Your task to perform on an android device: open a bookmark in the chrome app Image 0: 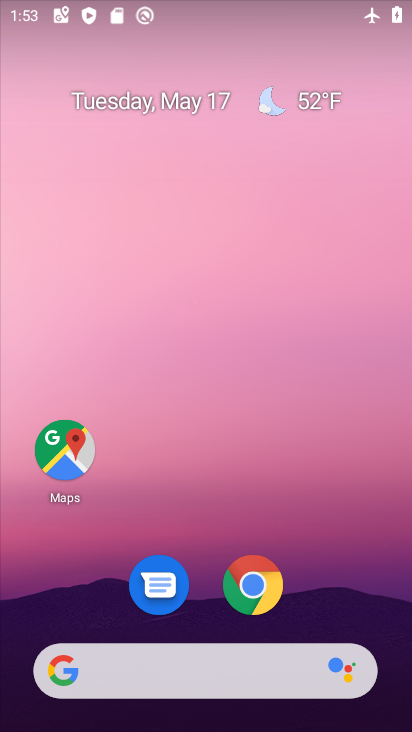
Step 0: click (273, 580)
Your task to perform on an android device: open a bookmark in the chrome app Image 1: 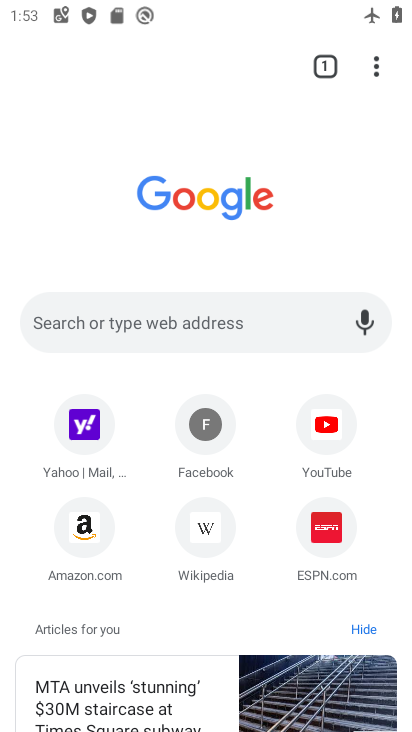
Step 1: click (375, 52)
Your task to perform on an android device: open a bookmark in the chrome app Image 2: 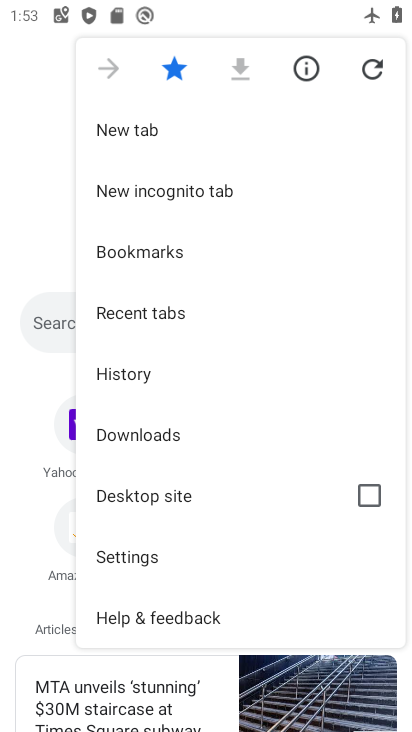
Step 2: click (180, 245)
Your task to perform on an android device: open a bookmark in the chrome app Image 3: 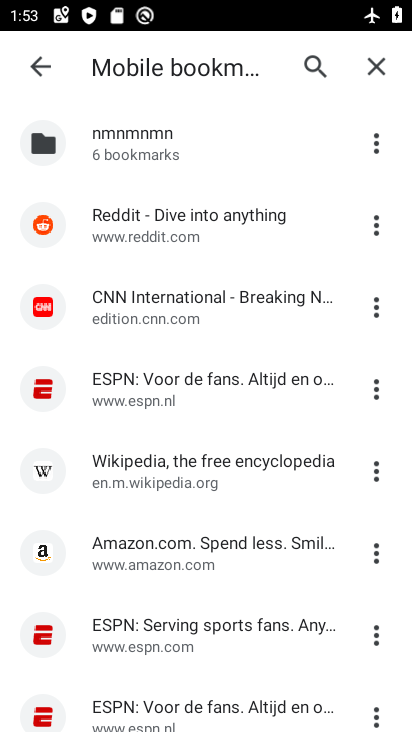
Step 3: task complete